Your task to perform on an android device: turn off smart reply in the gmail app Image 0: 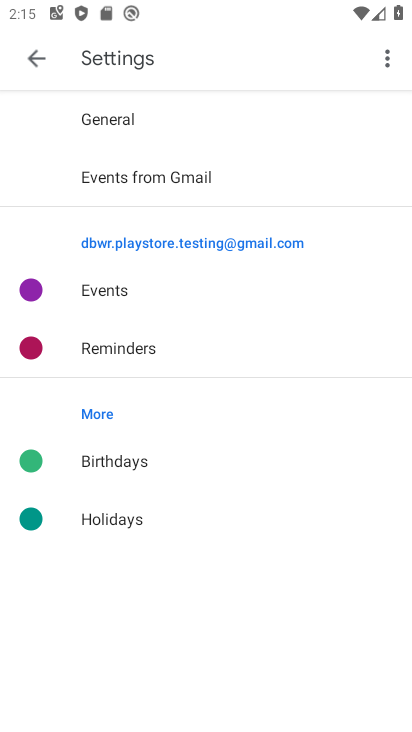
Step 0: press home button
Your task to perform on an android device: turn off smart reply in the gmail app Image 1: 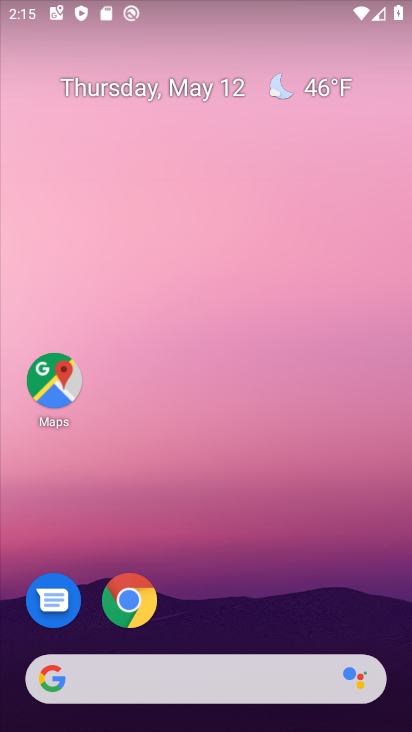
Step 1: drag from (219, 602) to (229, 21)
Your task to perform on an android device: turn off smart reply in the gmail app Image 2: 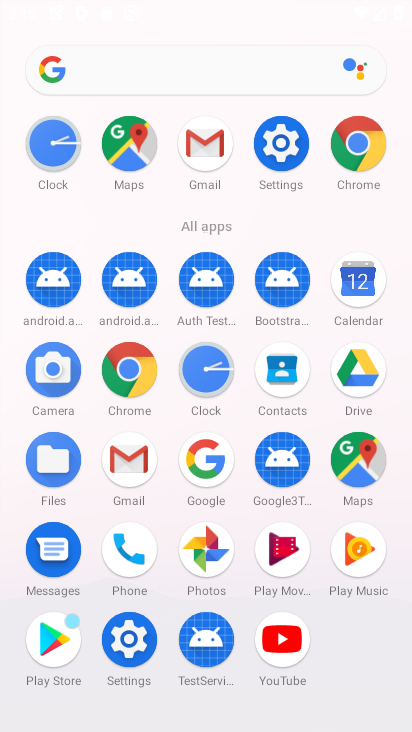
Step 2: click (133, 454)
Your task to perform on an android device: turn off smart reply in the gmail app Image 3: 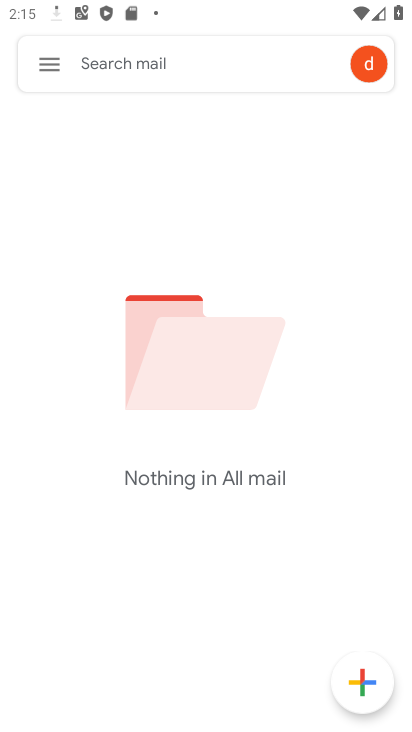
Step 3: click (49, 79)
Your task to perform on an android device: turn off smart reply in the gmail app Image 4: 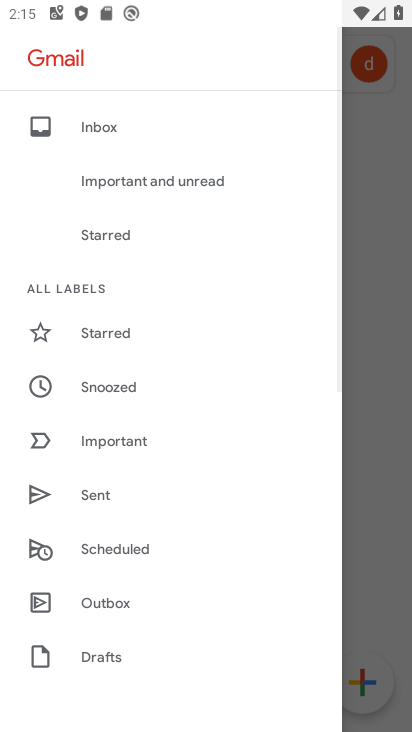
Step 4: drag from (80, 553) to (166, 77)
Your task to perform on an android device: turn off smart reply in the gmail app Image 5: 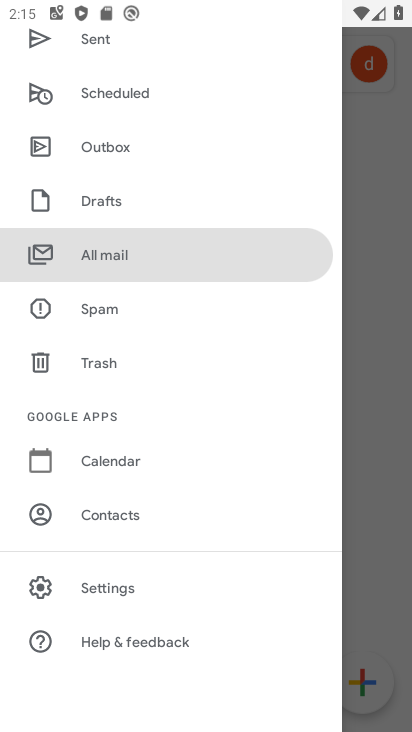
Step 5: click (118, 595)
Your task to perform on an android device: turn off smart reply in the gmail app Image 6: 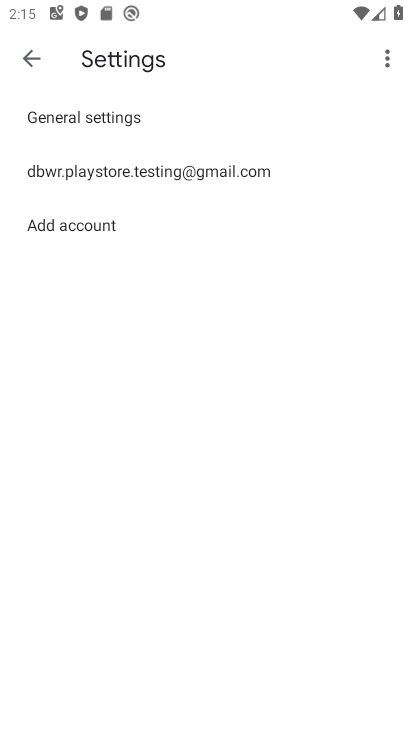
Step 6: click (120, 174)
Your task to perform on an android device: turn off smart reply in the gmail app Image 7: 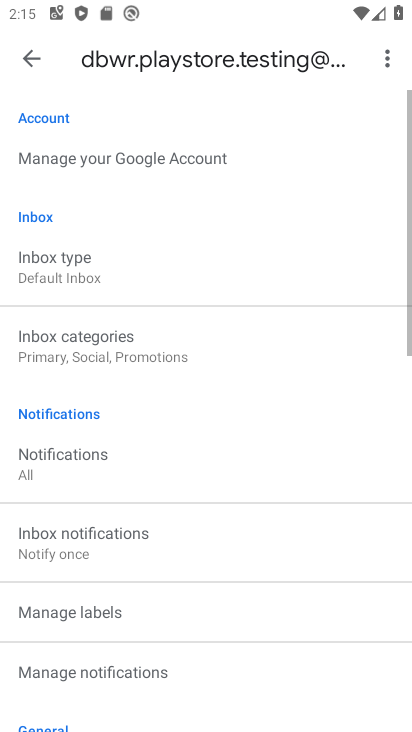
Step 7: drag from (156, 546) to (192, 214)
Your task to perform on an android device: turn off smart reply in the gmail app Image 8: 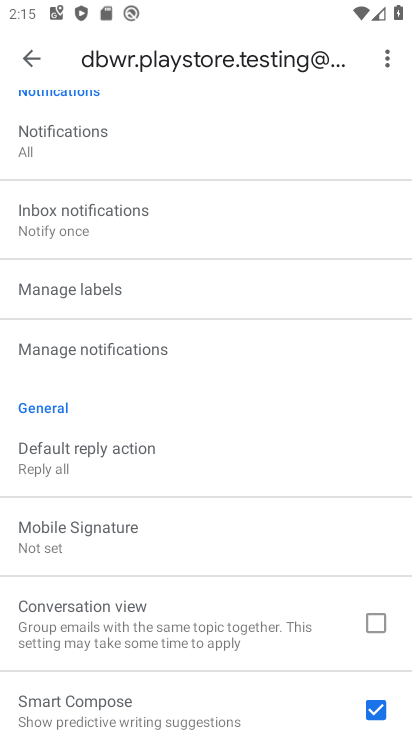
Step 8: drag from (188, 520) to (222, 217)
Your task to perform on an android device: turn off smart reply in the gmail app Image 9: 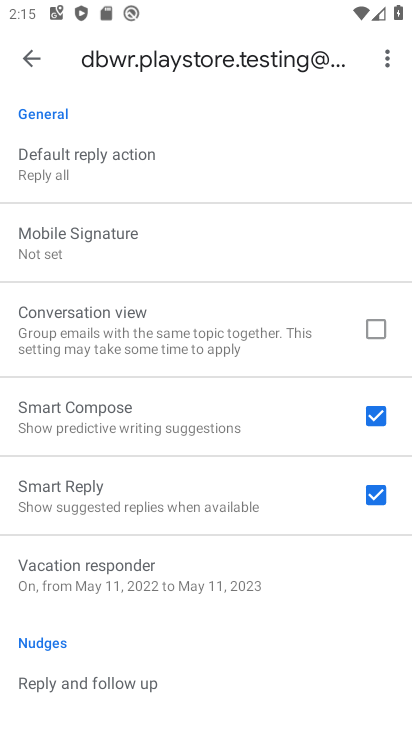
Step 9: click (355, 506)
Your task to perform on an android device: turn off smart reply in the gmail app Image 10: 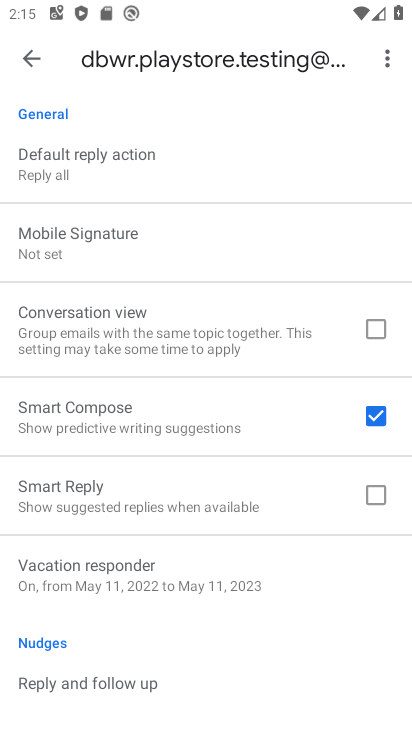
Step 10: task complete